Your task to perform on an android device: Go to Amazon Image 0: 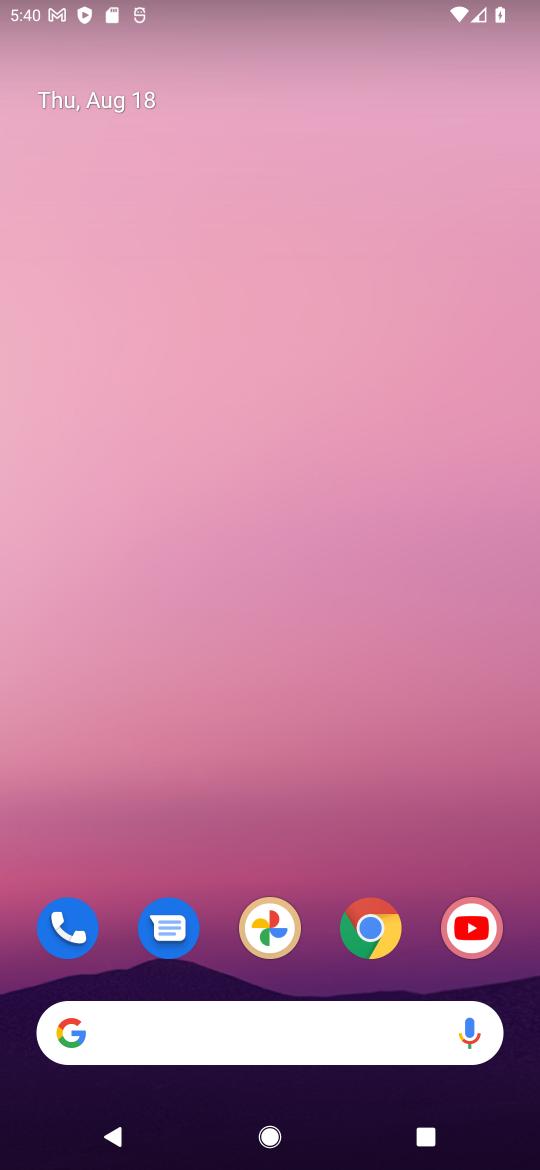
Step 0: drag from (348, 814) to (384, 1)
Your task to perform on an android device: Go to Amazon Image 1: 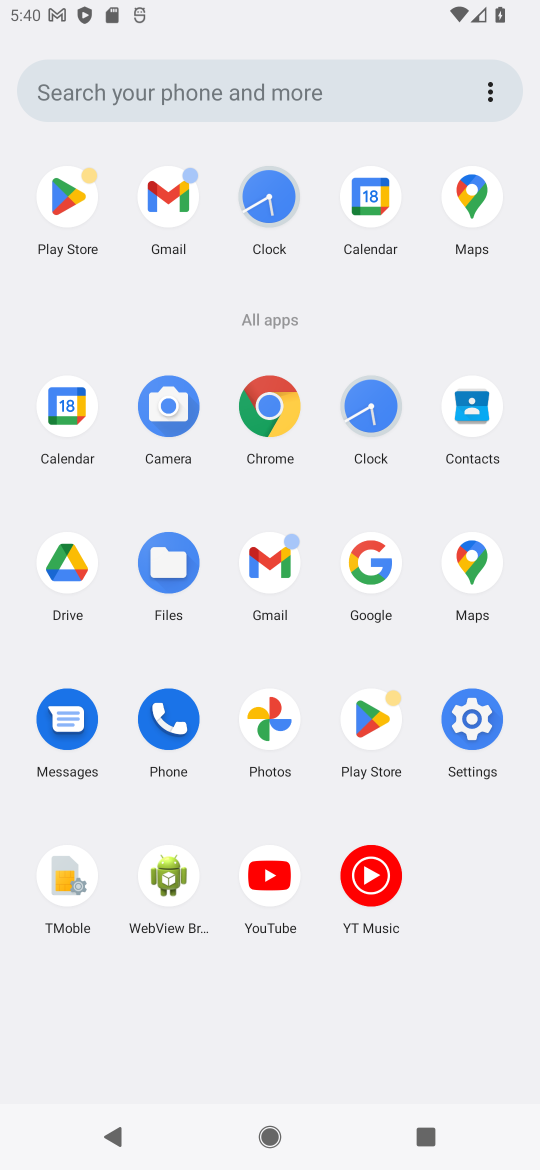
Step 1: click (264, 413)
Your task to perform on an android device: Go to Amazon Image 2: 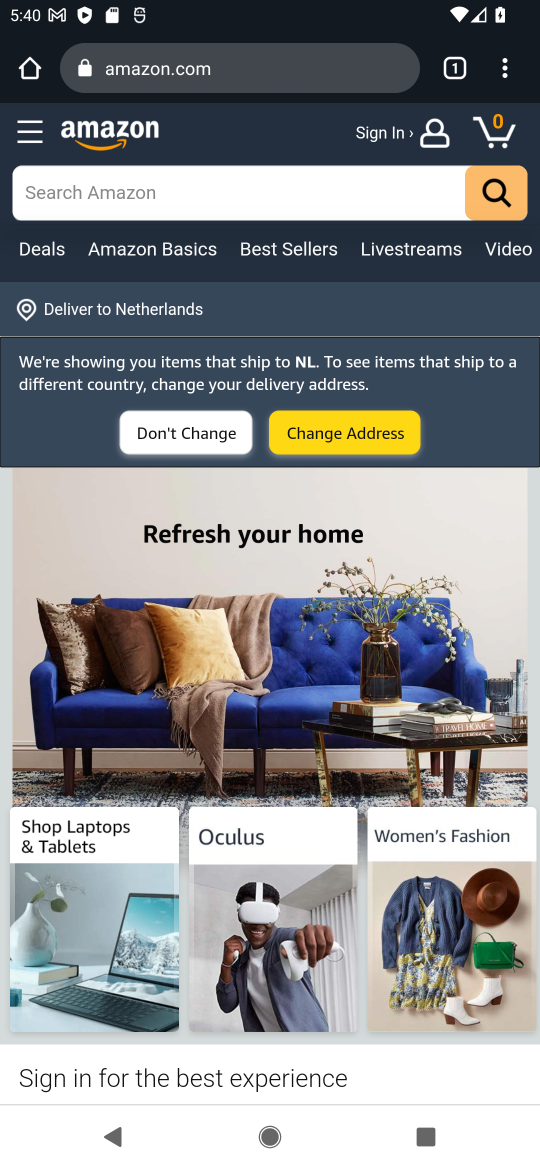
Step 2: task complete